Your task to perform on an android device: Go to Google Image 0: 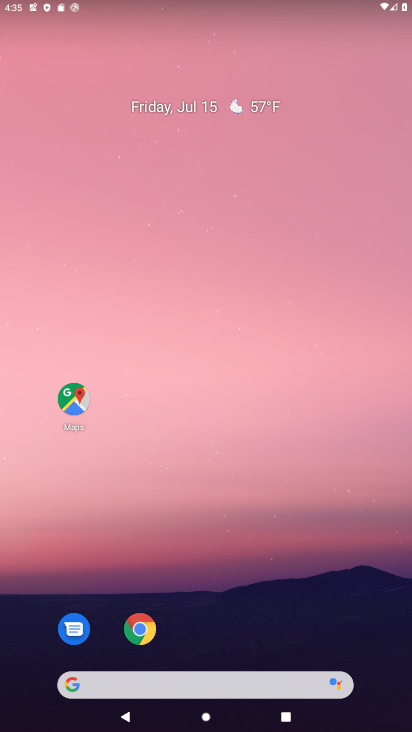
Step 0: press home button
Your task to perform on an android device: Go to Google Image 1: 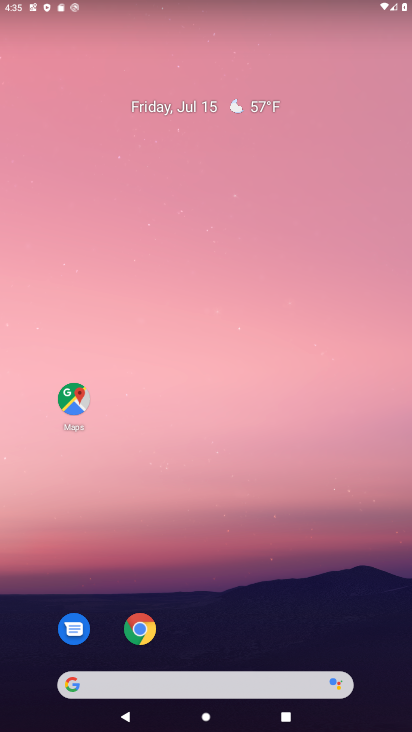
Step 1: click (71, 680)
Your task to perform on an android device: Go to Google Image 2: 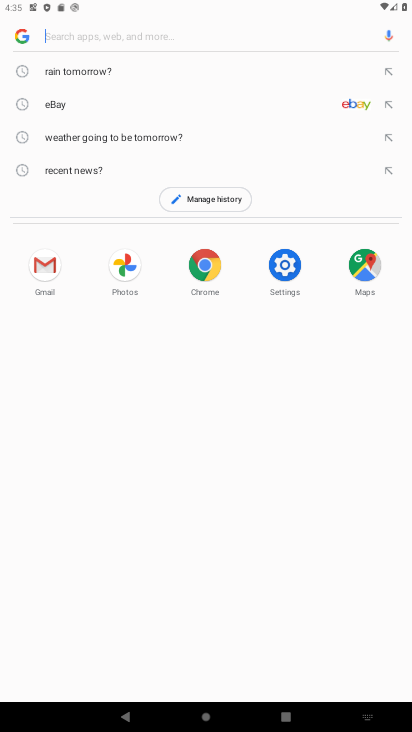
Step 2: task complete